Your task to perform on an android device: check storage Image 0: 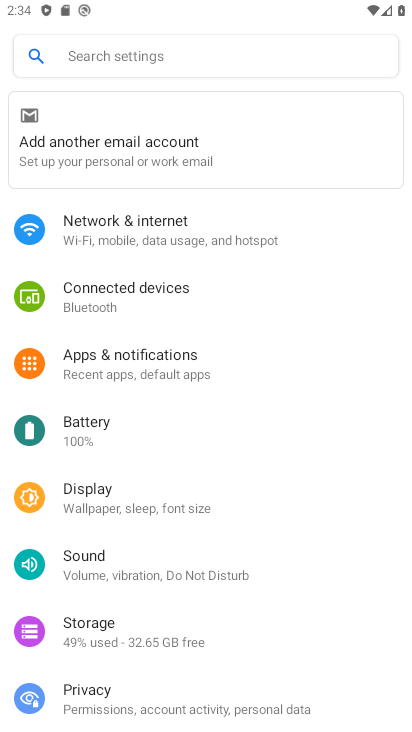
Step 0: press home button
Your task to perform on an android device: check storage Image 1: 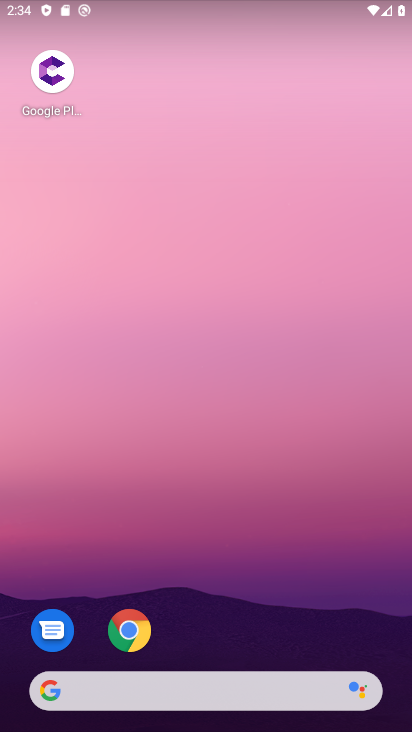
Step 1: drag from (249, 637) to (218, 252)
Your task to perform on an android device: check storage Image 2: 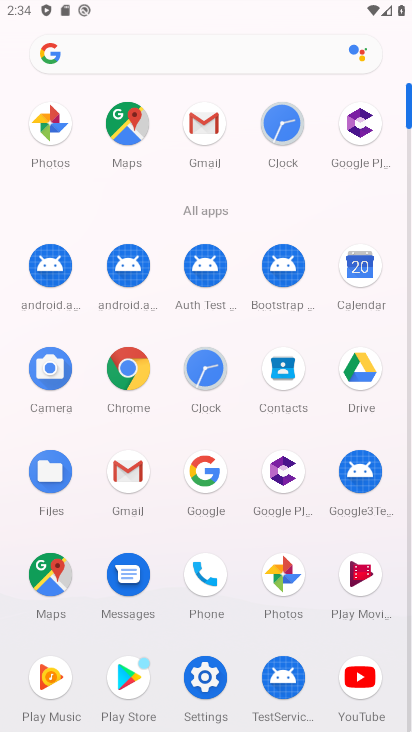
Step 2: click (208, 684)
Your task to perform on an android device: check storage Image 3: 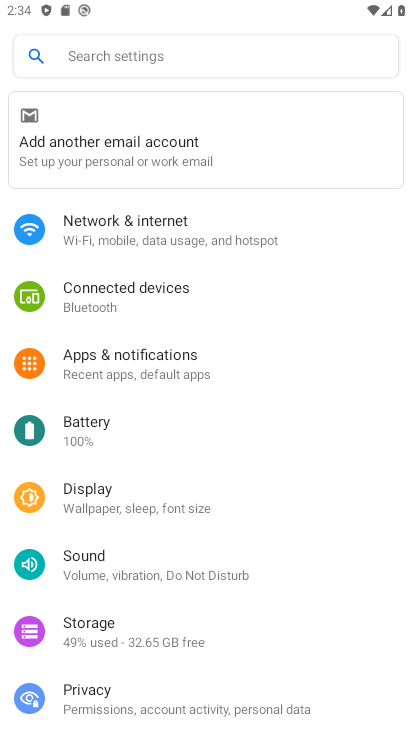
Step 3: click (167, 635)
Your task to perform on an android device: check storage Image 4: 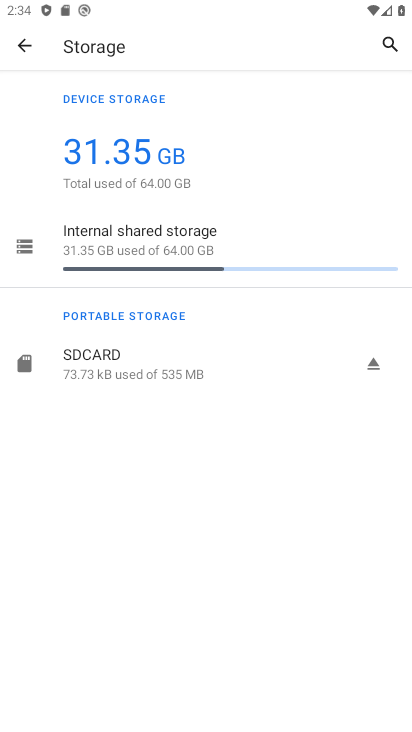
Step 4: task complete